Your task to perform on an android device: toggle data saver in the chrome app Image 0: 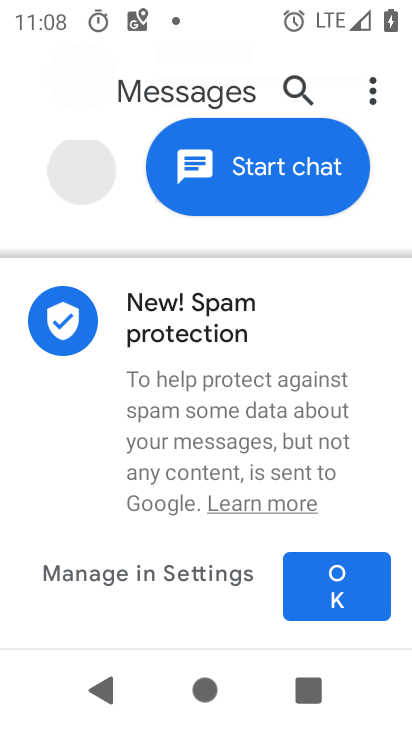
Step 0: press home button
Your task to perform on an android device: toggle data saver in the chrome app Image 1: 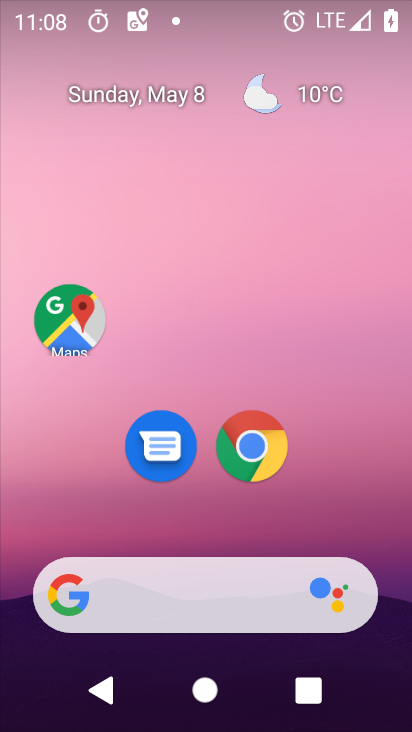
Step 1: click (254, 449)
Your task to perform on an android device: toggle data saver in the chrome app Image 2: 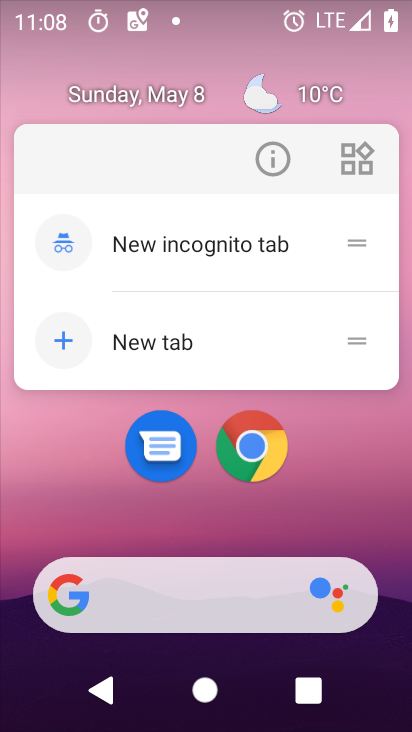
Step 2: click (253, 450)
Your task to perform on an android device: toggle data saver in the chrome app Image 3: 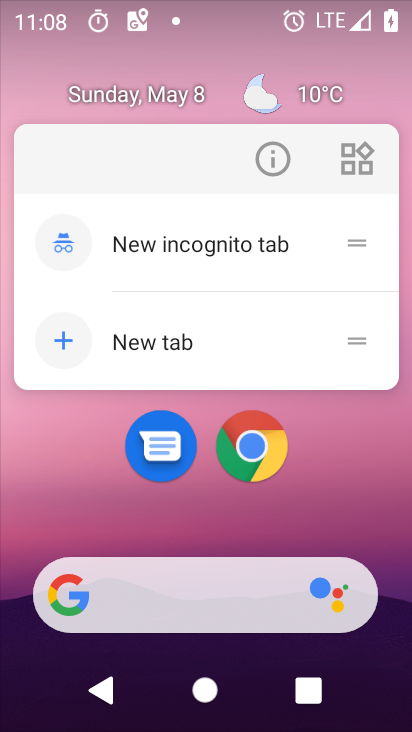
Step 3: click (253, 450)
Your task to perform on an android device: toggle data saver in the chrome app Image 4: 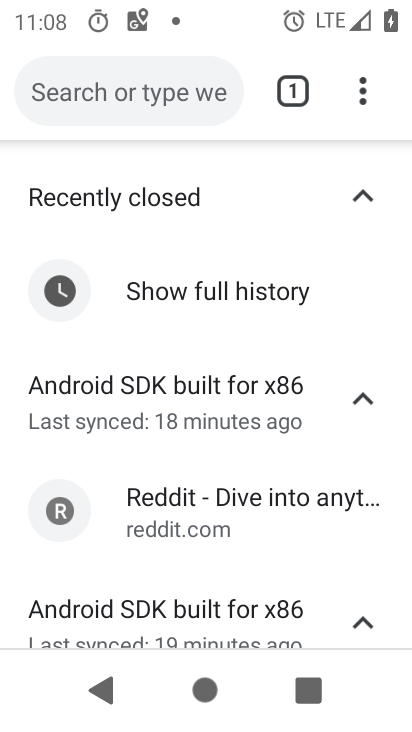
Step 4: click (363, 93)
Your task to perform on an android device: toggle data saver in the chrome app Image 5: 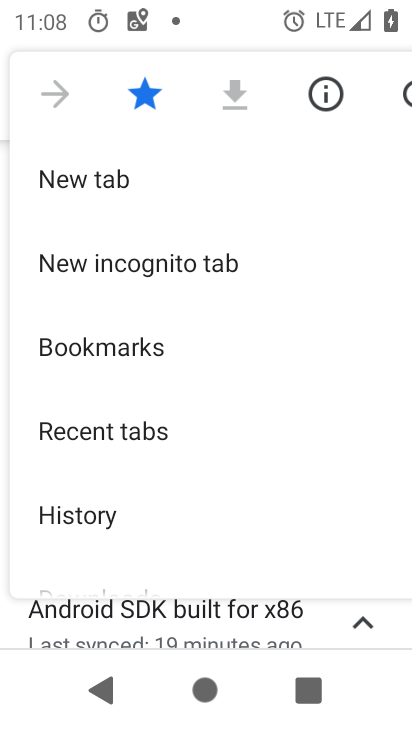
Step 5: drag from (225, 478) to (228, 77)
Your task to perform on an android device: toggle data saver in the chrome app Image 6: 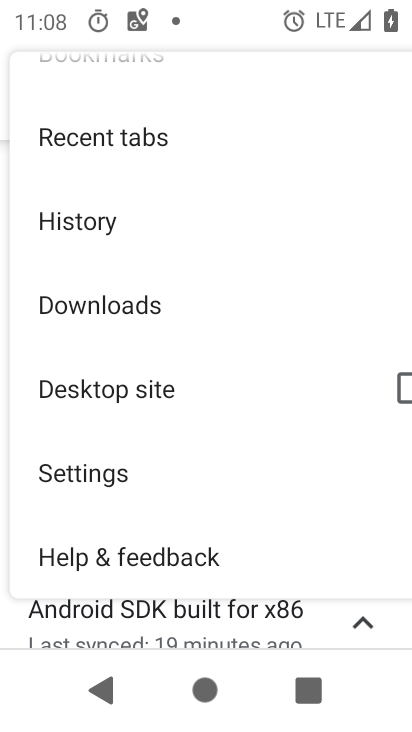
Step 6: drag from (168, 485) to (192, 216)
Your task to perform on an android device: toggle data saver in the chrome app Image 7: 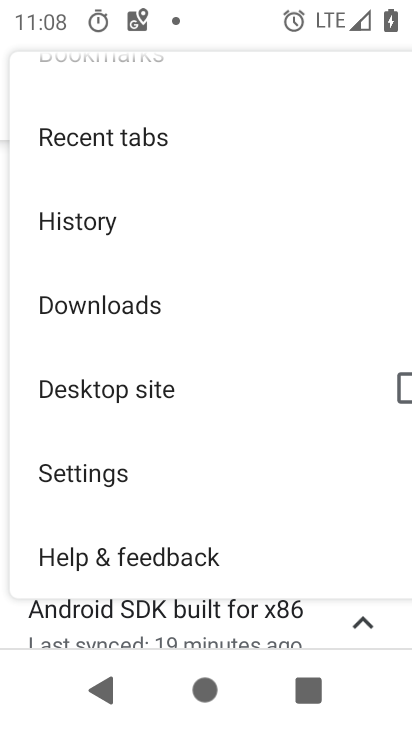
Step 7: click (82, 471)
Your task to perform on an android device: toggle data saver in the chrome app Image 8: 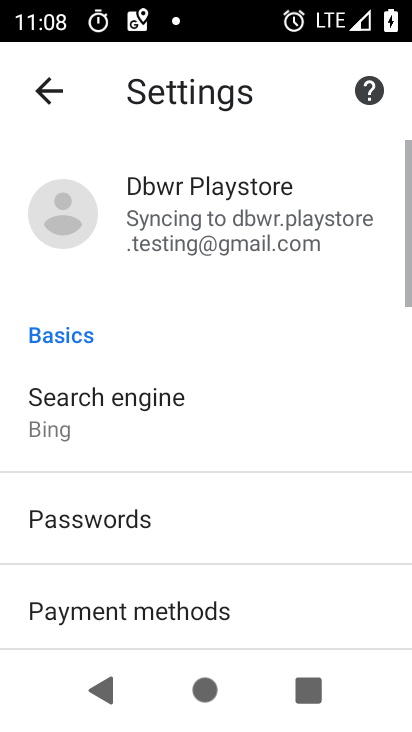
Step 8: drag from (262, 516) to (267, 102)
Your task to perform on an android device: toggle data saver in the chrome app Image 9: 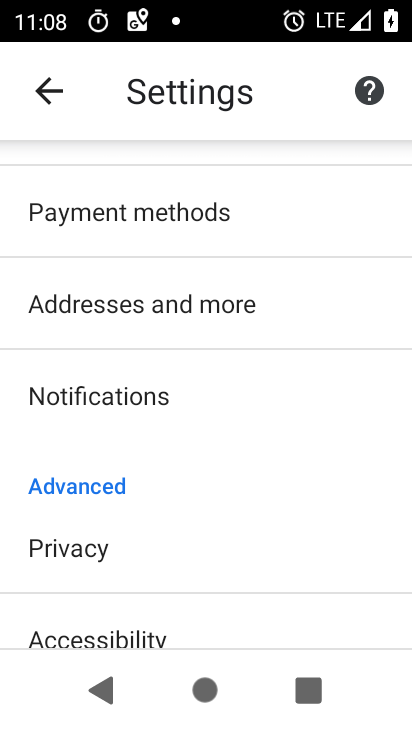
Step 9: drag from (150, 469) to (175, 171)
Your task to perform on an android device: toggle data saver in the chrome app Image 10: 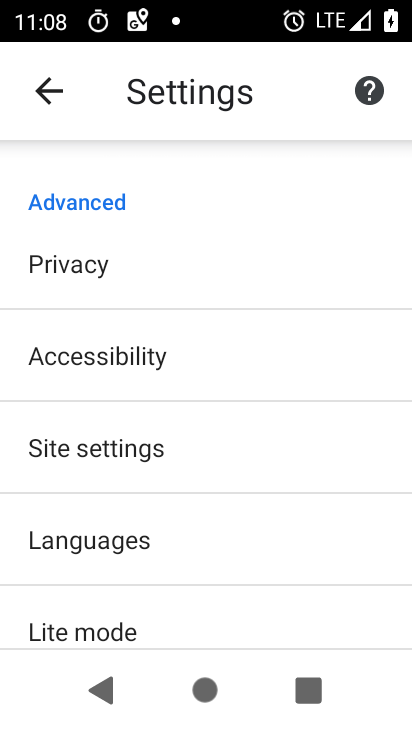
Step 10: drag from (184, 540) to (184, 225)
Your task to perform on an android device: toggle data saver in the chrome app Image 11: 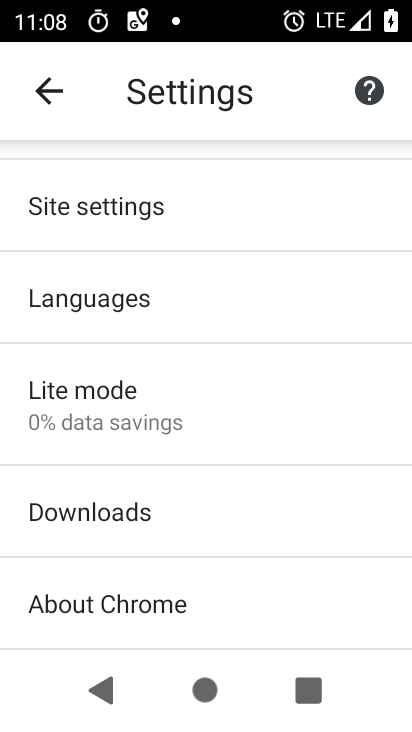
Step 11: click (108, 394)
Your task to perform on an android device: toggle data saver in the chrome app Image 12: 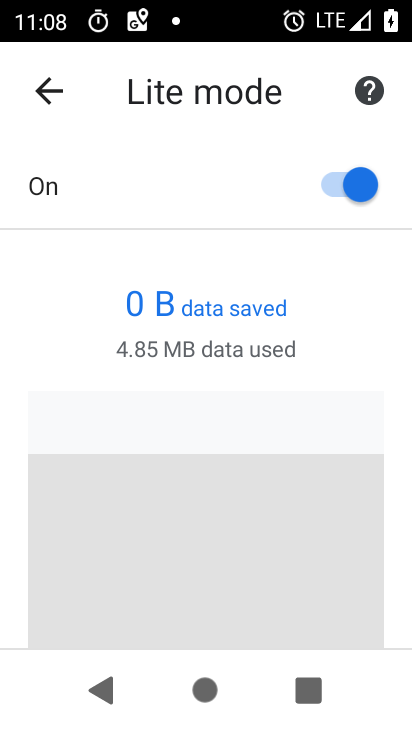
Step 12: click (348, 196)
Your task to perform on an android device: toggle data saver in the chrome app Image 13: 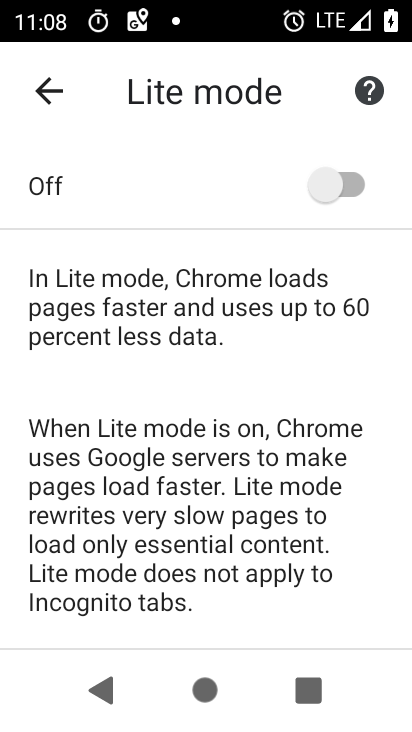
Step 13: task complete